Your task to perform on an android device: Show me recent news Image 0: 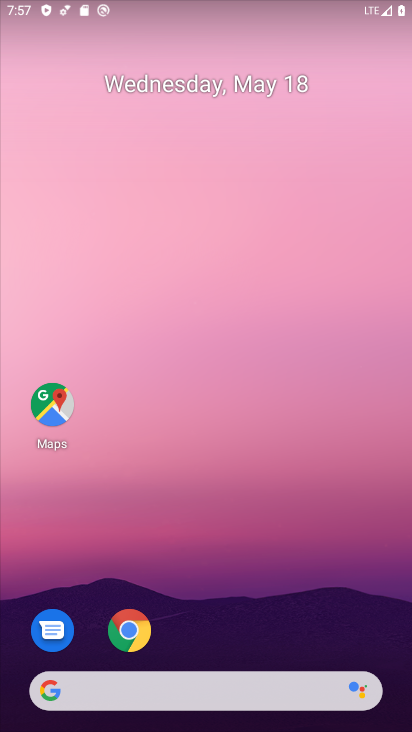
Step 0: press home button
Your task to perform on an android device: Show me recent news Image 1: 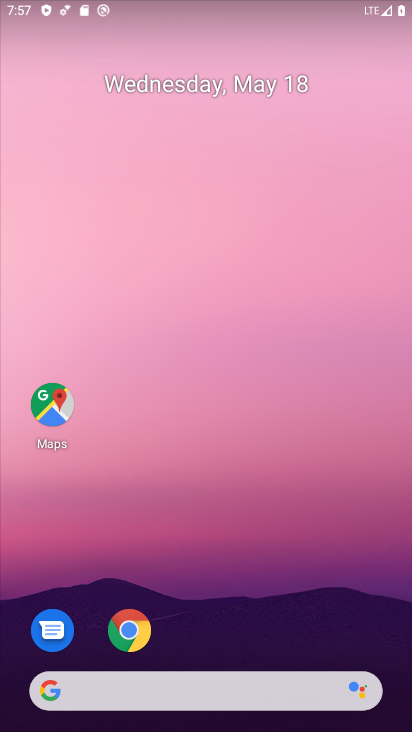
Step 1: click (52, 694)
Your task to perform on an android device: Show me recent news Image 2: 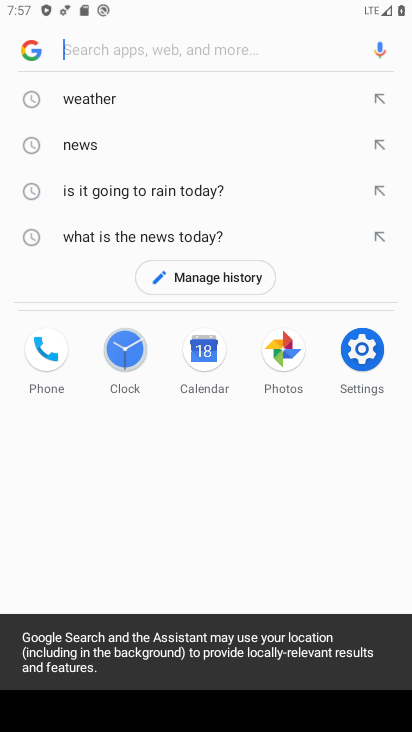
Step 2: click (86, 142)
Your task to perform on an android device: Show me recent news Image 3: 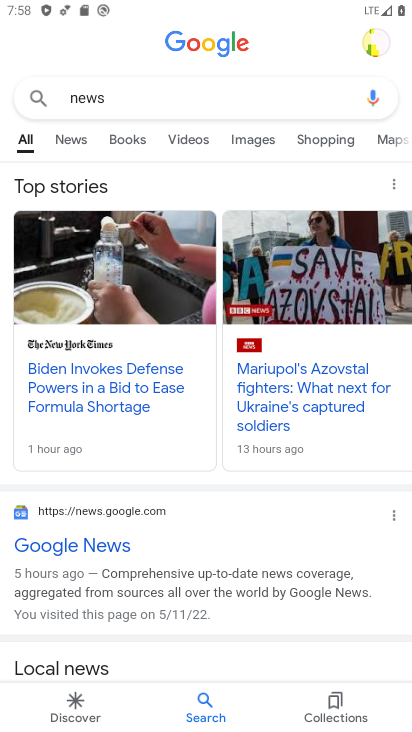
Step 3: click (78, 144)
Your task to perform on an android device: Show me recent news Image 4: 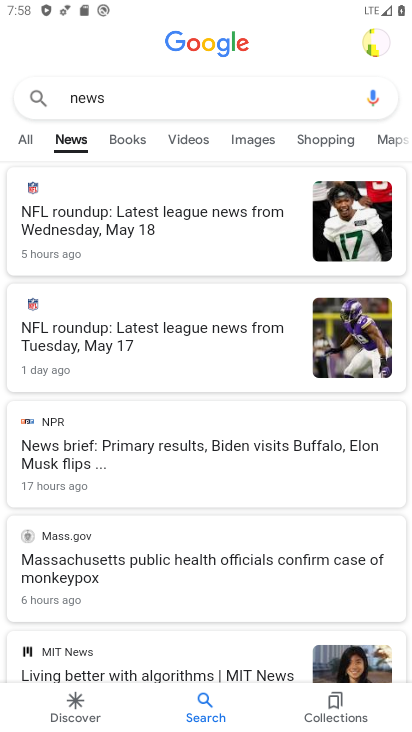
Step 4: task complete